Your task to perform on an android device: check google app version Image 0: 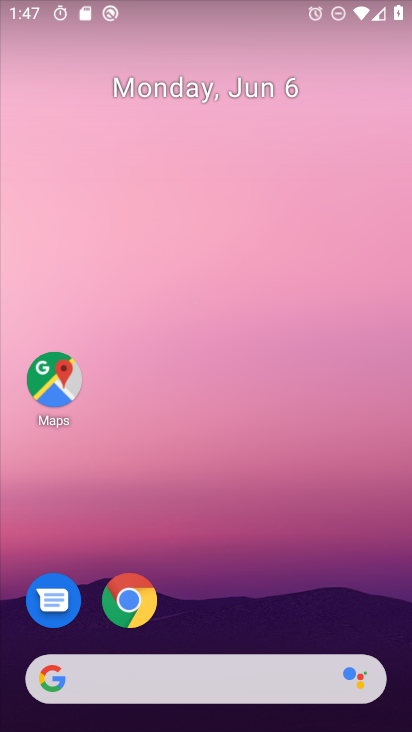
Step 0: drag from (242, 627) to (231, 180)
Your task to perform on an android device: check google app version Image 1: 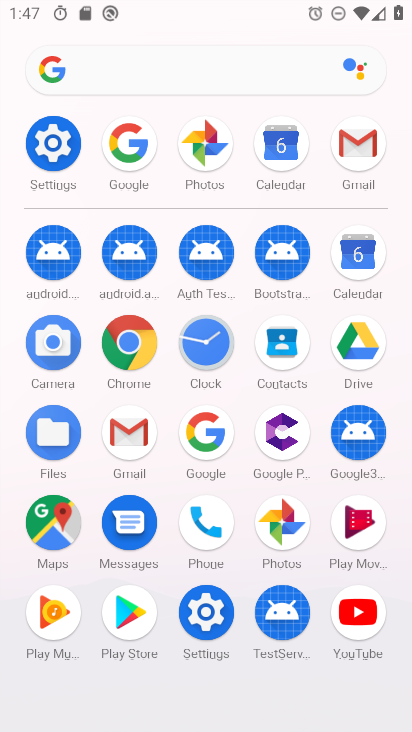
Step 1: click (72, 156)
Your task to perform on an android device: check google app version Image 2: 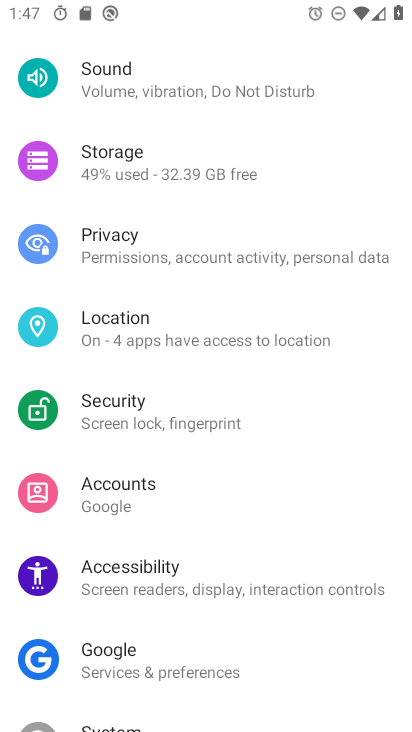
Step 2: press home button
Your task to perform on an android device: check google app version Image 3: 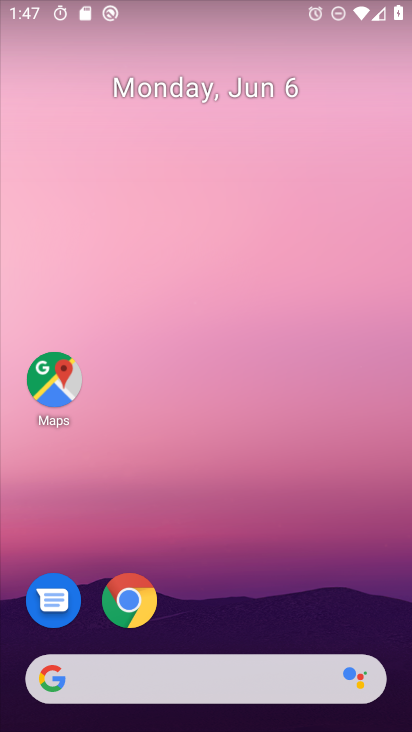
Step 3: drag from (203, 615) to (232, 163)
Your task to perform on an android device: check google app version Image 4: 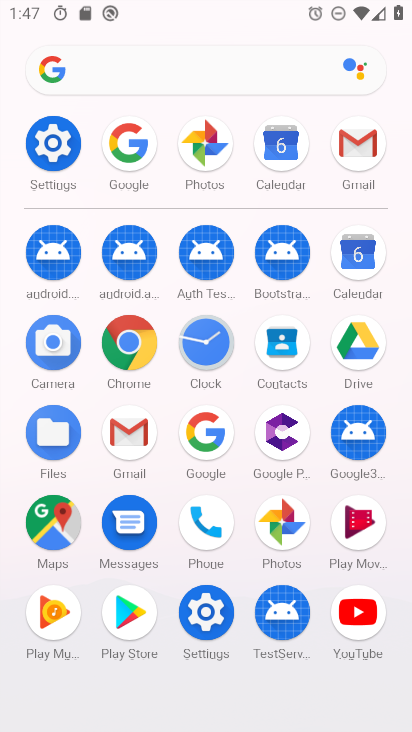
Step 4: click (213, 440)
Your task to perform on an android device: check google app version Image 5: 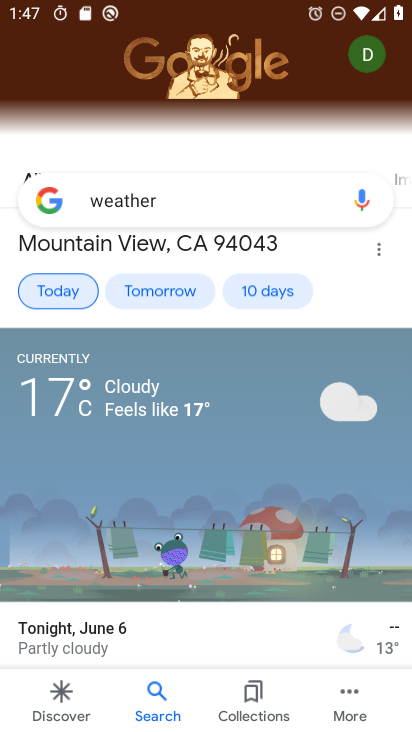
Step 5: click (348, 723)
Your task to perform on an android device: check google app version Image 6: 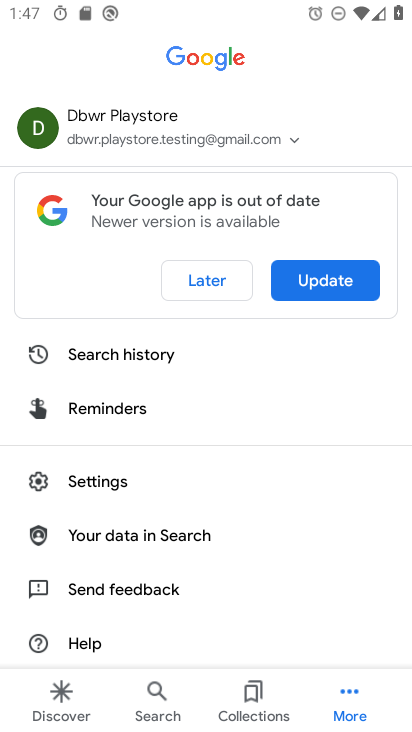
Step 6: drag from (244, 604) to (244, 301)
Your task to perform on an android device: check google app version Image 7: 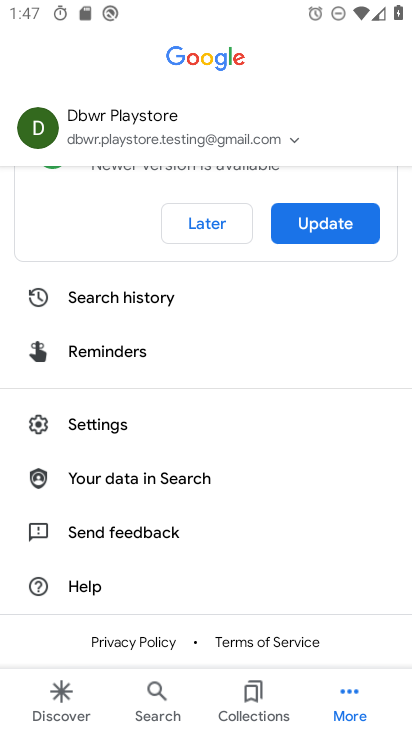
Step 7: click (118, 417)
Your task to perform on an android device: check google app version Image 8: 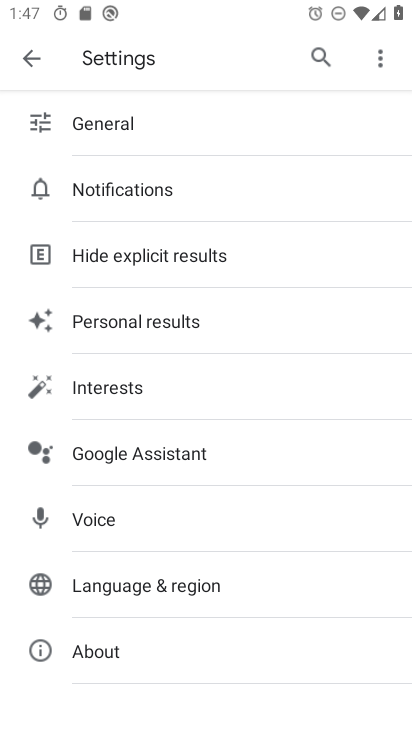
Step 8: click (167, 634)
Your task to perform on an android device: check google app version Image 9: 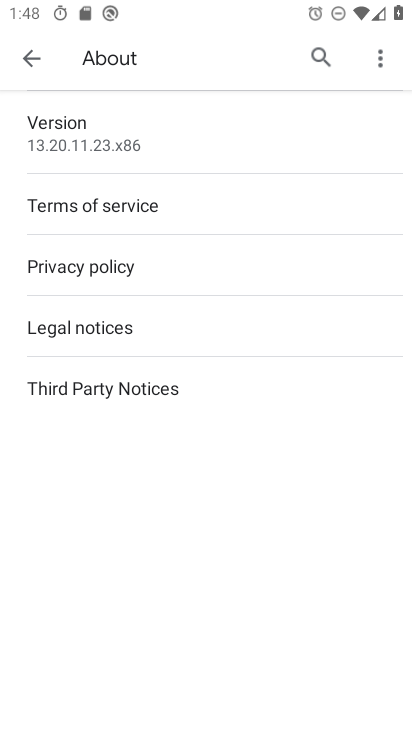
Step 9: click (100, 120)
Your task to perform on an android device: check google app version Image 10: 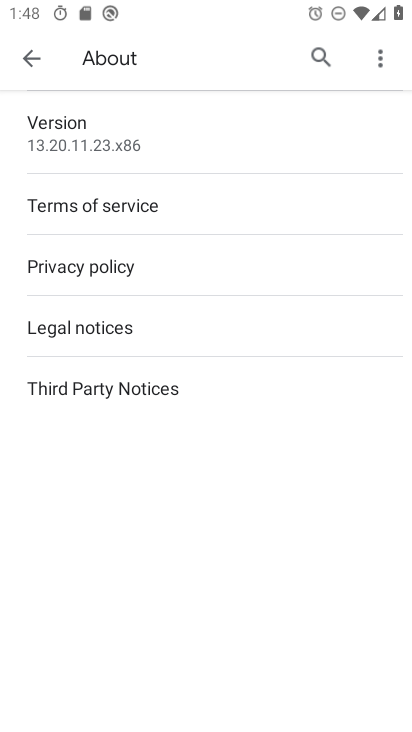
Step 10: click (100, 120)
Your task to perform on an android device: check google app version Image 11: 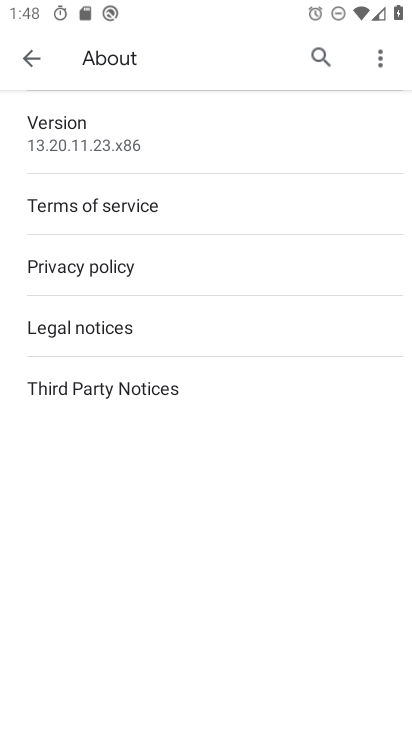
Step 11: click (100, 120)
Your task to perform on an android device: check google app version Image 12: 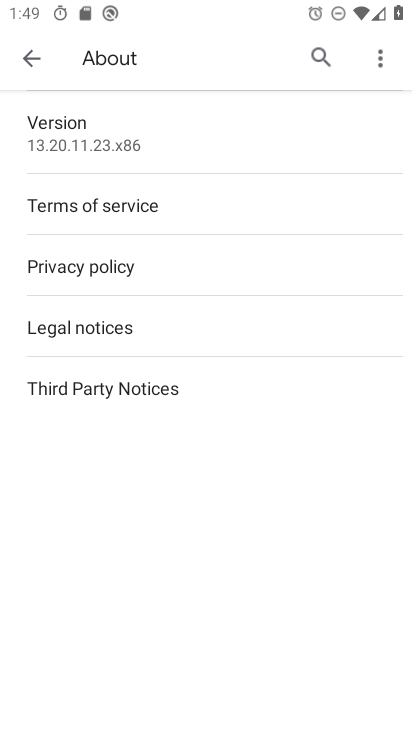
Step 12: click (149, 158)
Your task to perform on an android device: check google app version Image 13: 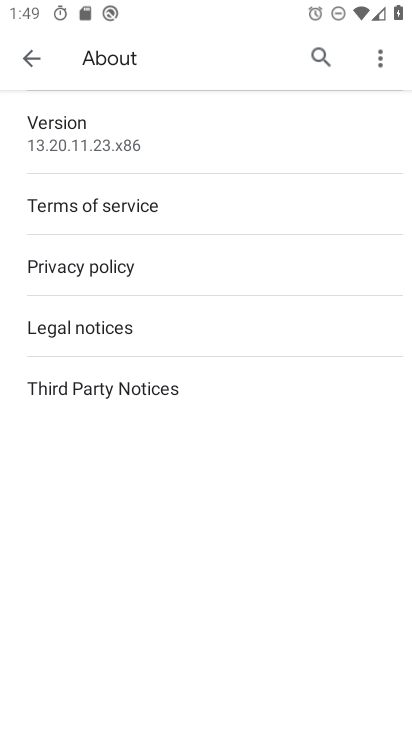
Step 13: click (115, 136)
Your task to perform on an android device: check google app version Image 14: 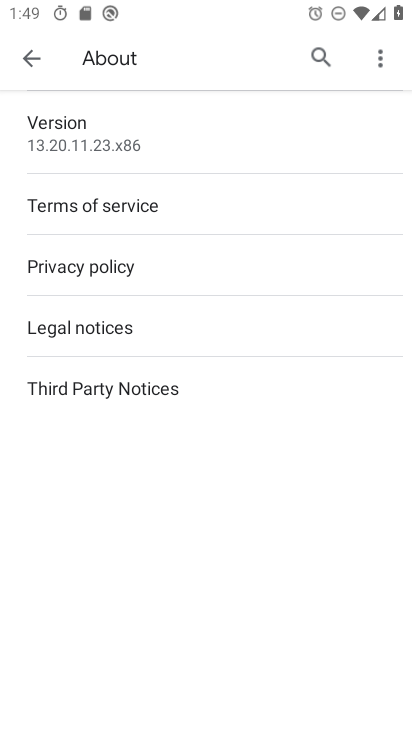
Step 14: task complete